Your task to perform on an android device: Search for apple airpods on newegg.com, select the first entry, add it to the cart, then select checkout. Image 0: 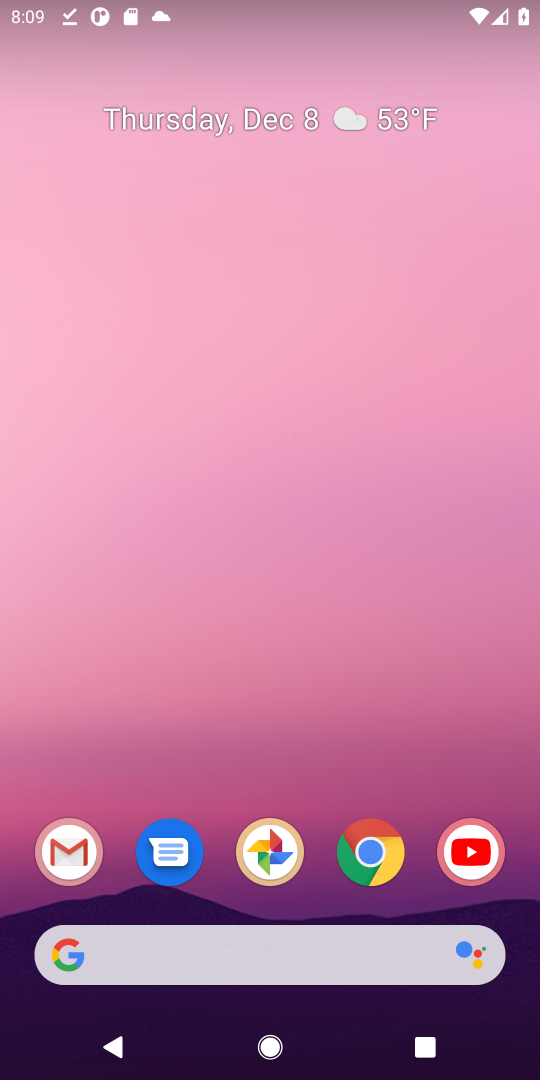
Step 0: click (269, 961)
Your task to perform on an android device: Search for apple airpods on newegg.com, select the first entry, add it to the cart, then select checkout. Image 1: 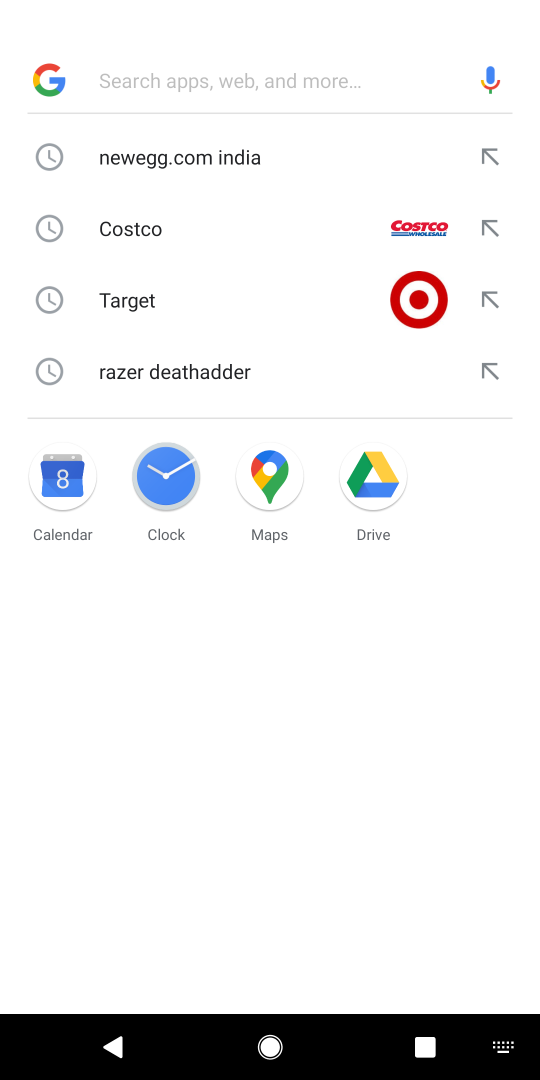
Step 1: type "newegg"
Your task to perform on an android device: Search for apple airpods on newegg.com, select the first entry, add it to the cart, then select checkout. Image 2: 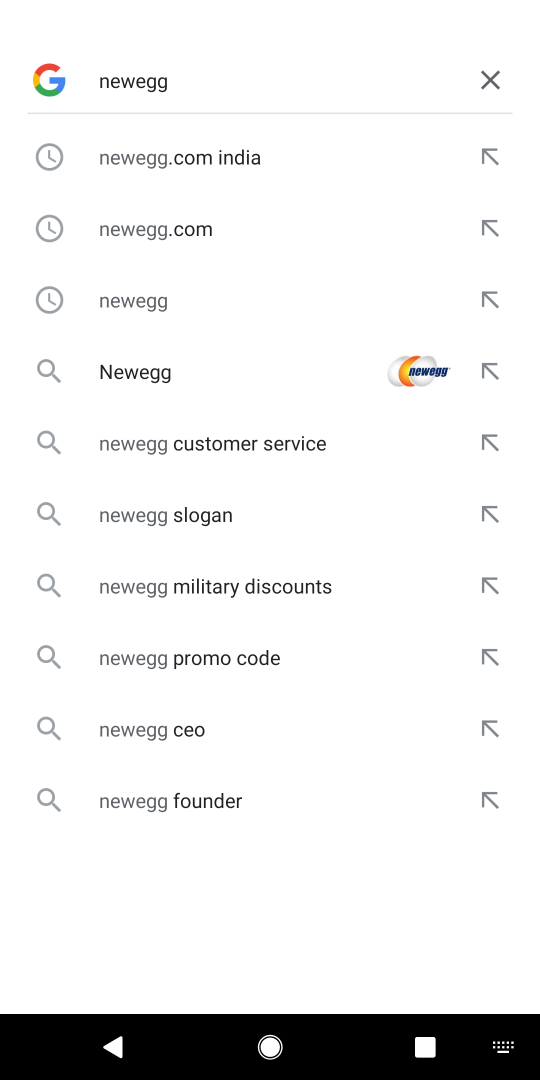
Step 2: click (175, 167)
Your task to perform on an android device: Search for apple airpods on newegg.com, select the first entry, add it to the cart, then select checkout. Image 3: 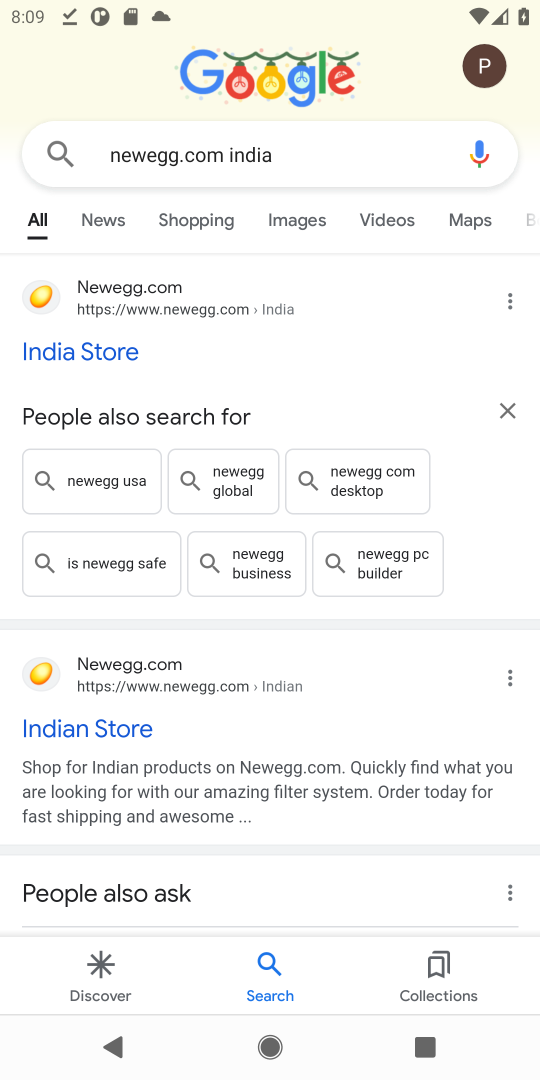
Step 3: click (116, 331)
Your task to perform on an android device: Search for apple airpods on newegg.com, select the first entry, add it to the cart, then select checkout. Image 4: 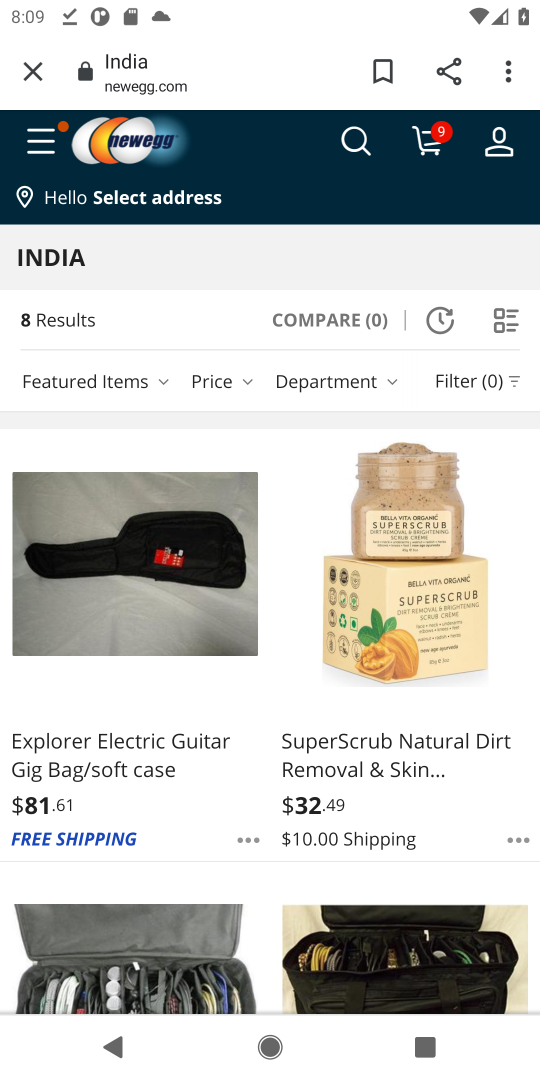
Step 4: task complete